Your task to perform on an android device: Look up the best rated coffee table on Ikea Image 0: 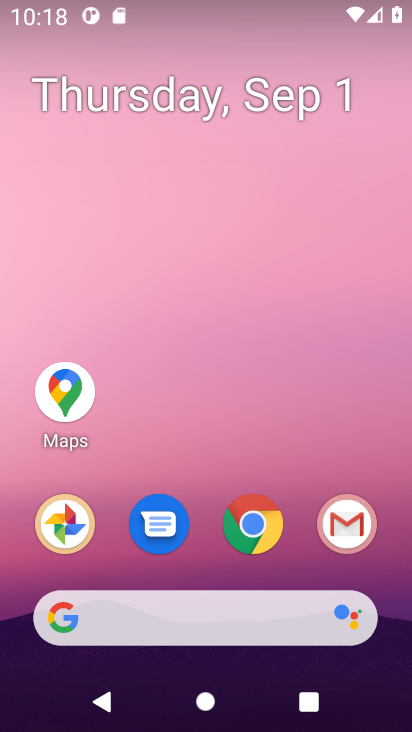
Step 0: drag from (373, 407) to (372, 115)
Your task to perform on an android device: Look up the best rated coffee table on Ikea Image 1: 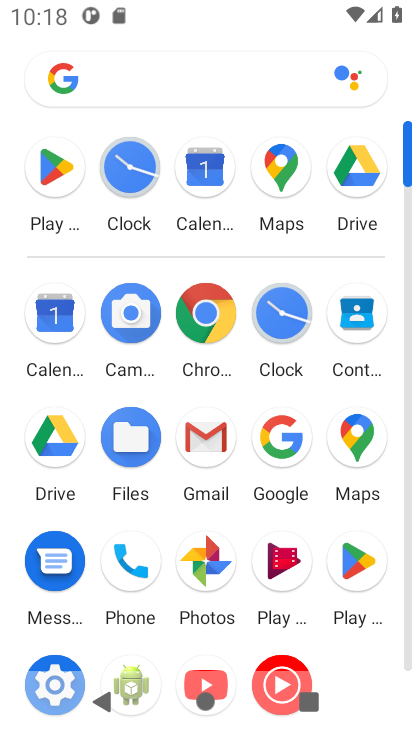
Step 1: click (202, 310)
Your task to perform on an android device: Look up the best rated coffee table on Ikea Image 2: 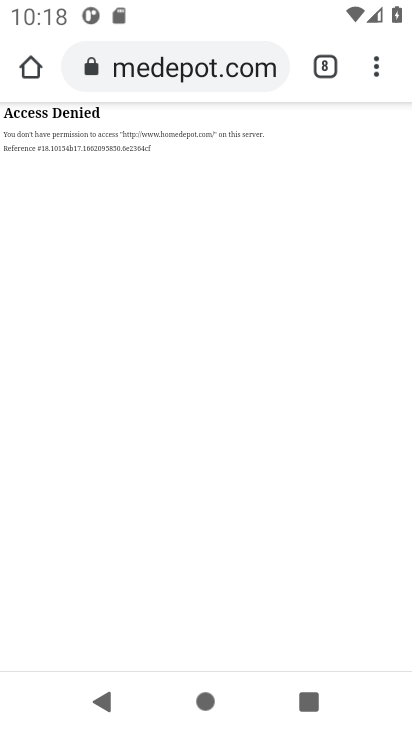
Step 2: click (232, 72)
Your task to perform on an android device: Look up the best rated coffee table on Ikea Image 3: 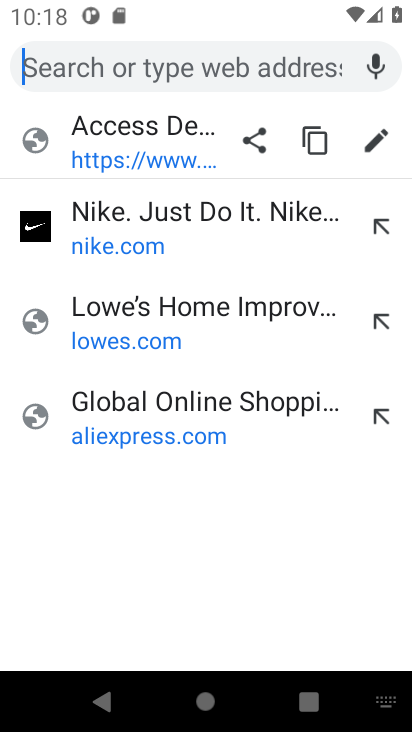
Step 3: type "ikea"
Your task to perform on an android device: Look up the best rated coffee table on Ikea Image 4: 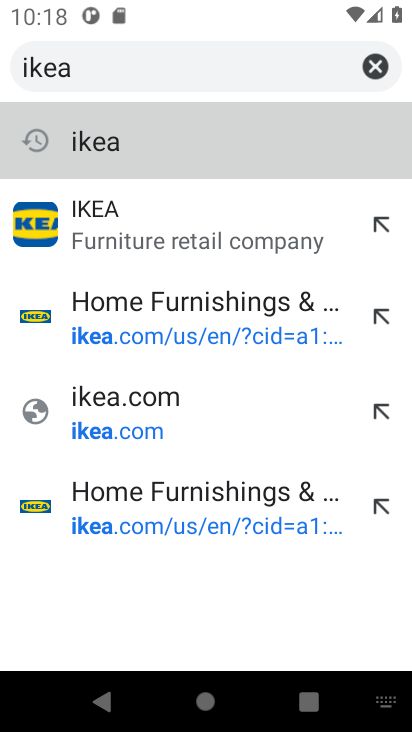
Step 4: click (246, 225)
Your task to perform on an android device: Look up the best rated coffee table on Ikea Image 5: 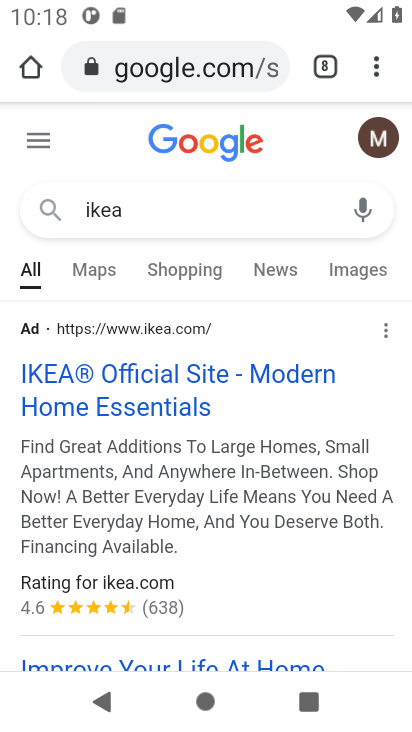
Step 5: click (145, 379)
Your task to perform on an android device: Look up the best rated coffee table on Ikea Image 6: 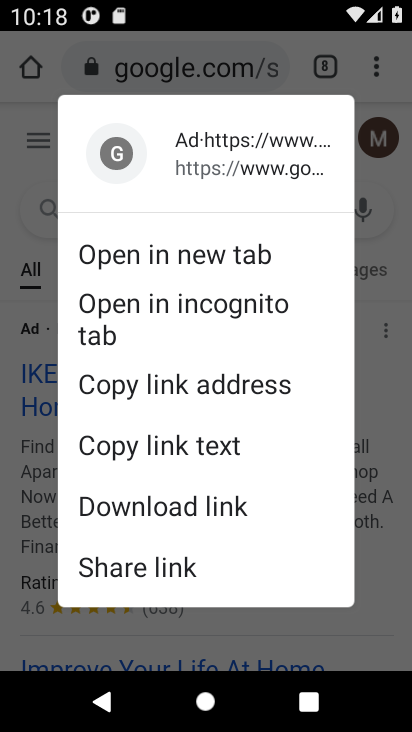
Step 6: click (228, 250)
Your task to perform on an android device: Look up the best rated coffee table on Ikea Image 7: 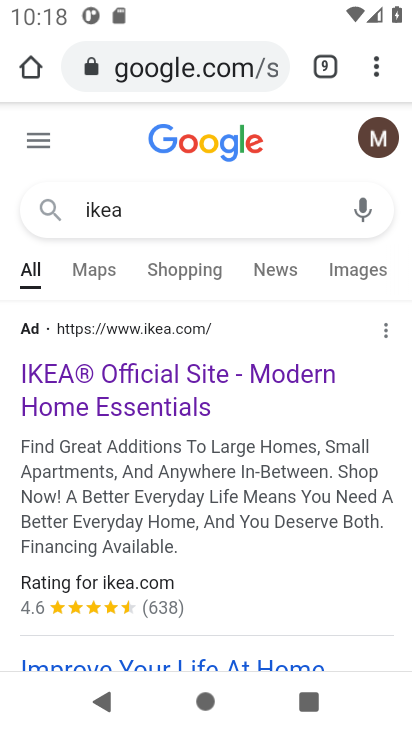
Step 7: click (171, 396)
Your task to perform on an android device: Look up the best rated coffee table on Ikea Image 8: 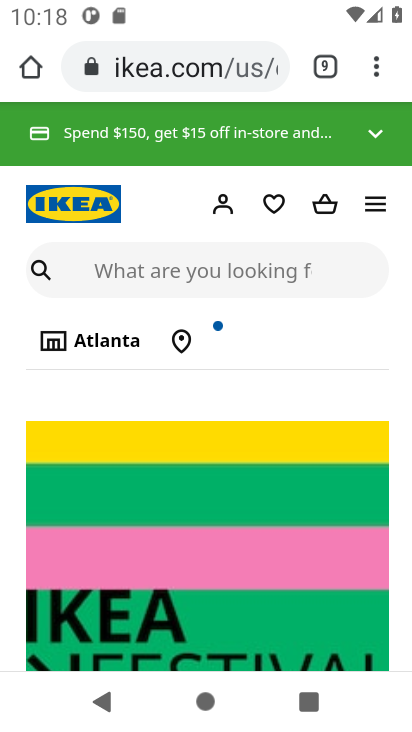
Step 8: click (243, 276)
Your task to perform on an android device: Look up the best rated coffee table on Ikea Image 9: 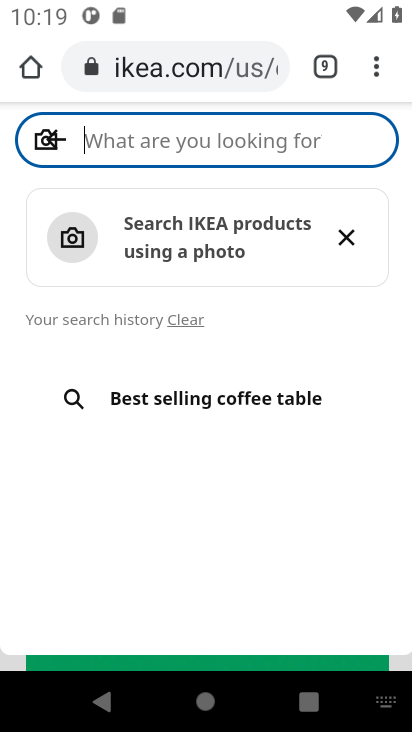
Step 9: type "best rated coffee table"
Your task to perform on an android device: Look up the best rated coffee table on Ikea Image 10: 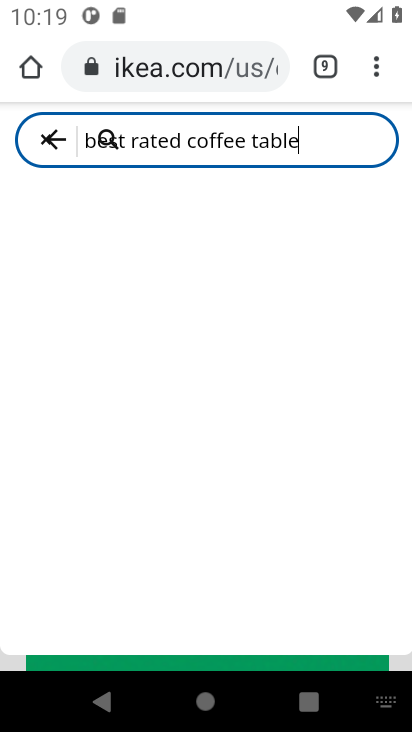
Step 10: click (48, 138)
Your task to perform on an android device: Look up the best rated coffee table on Ikea Image 11: 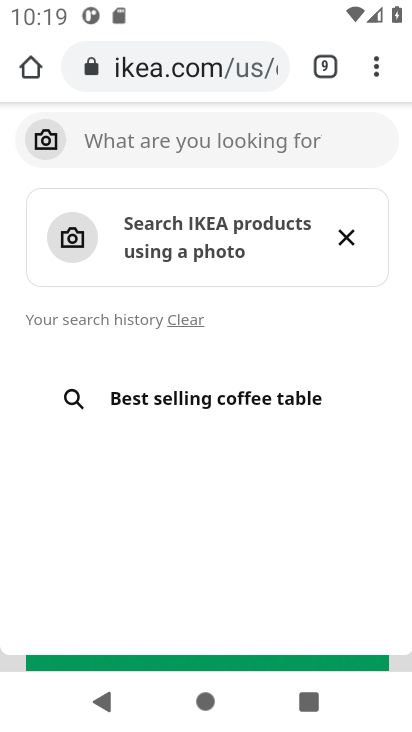
Step 11: click (141, 397)
Your task to perform on an android device: Look up the best rated coffee table on Ikea Image 12: 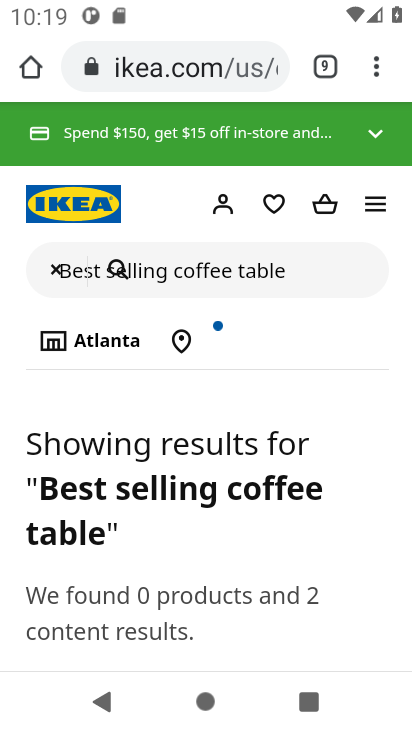
Step 12: task complete